Your task to perform on an android device: Go to accessibility settings Image 0: 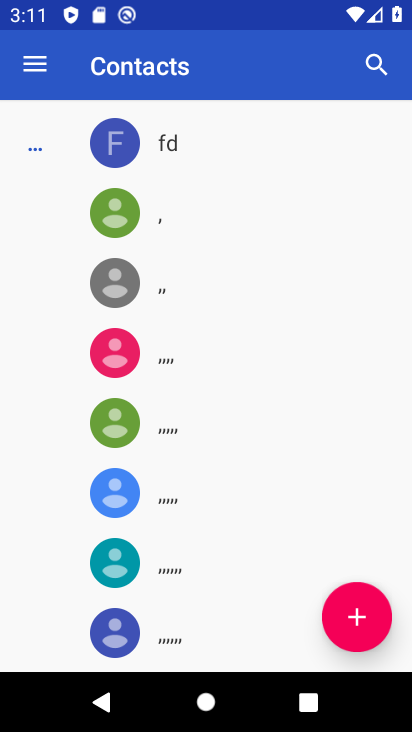
Step 0: press home button
Your task to perform on an android device: Go to accessibility settings Image 1: 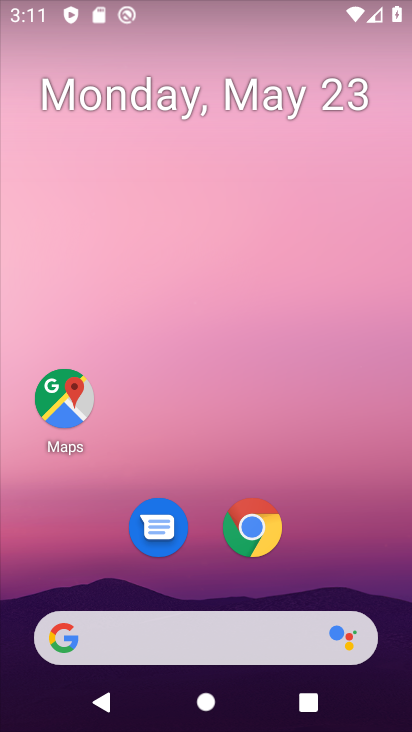
Step 1: drag from (309, 442) to (302, 179)
Your task to perform on an android device: Go to accessibility settings Image 2: 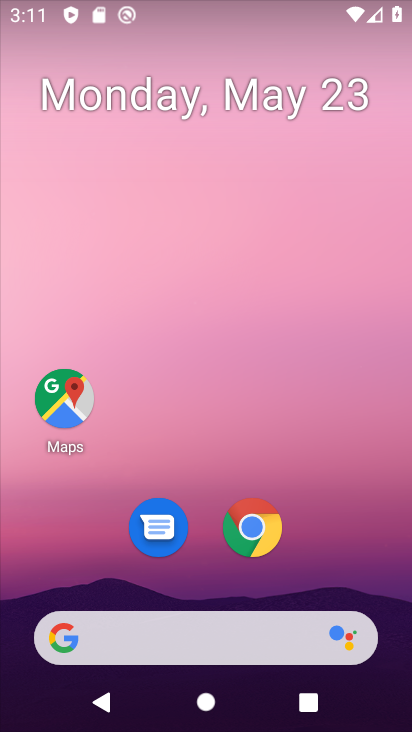
Step 2: drag from (334, 562) to (279, 145)
Your task to perform on an android device: Go to accessibility settings Image 3: 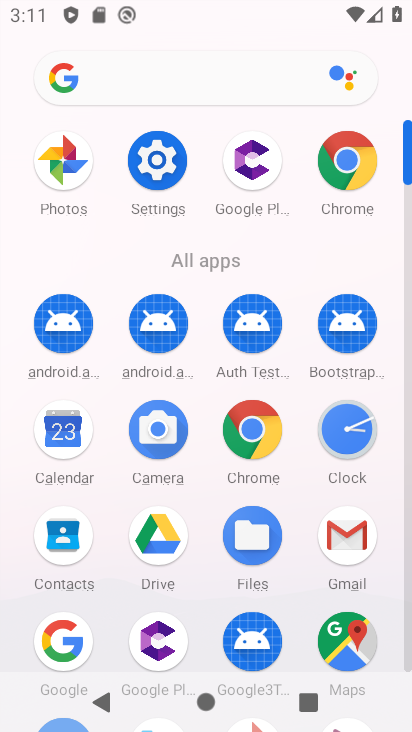
Step 3: click (164, 167)
Your task to perform on an android device: Go to accessibility settings Image 4: 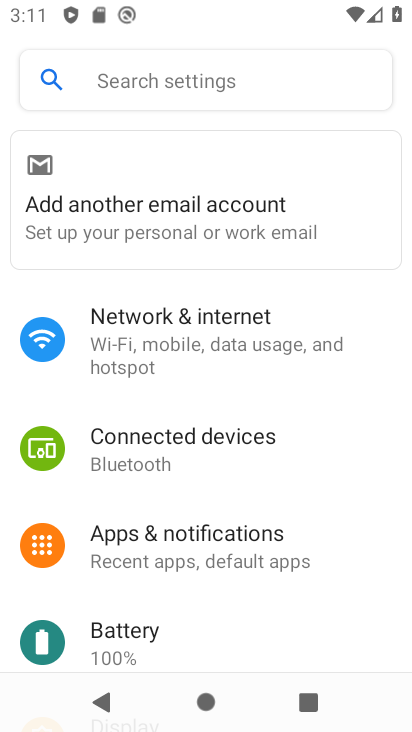
Step 4: click (271, 236)
Your task to perform on an android device: Go to accessibility settings Image 5: 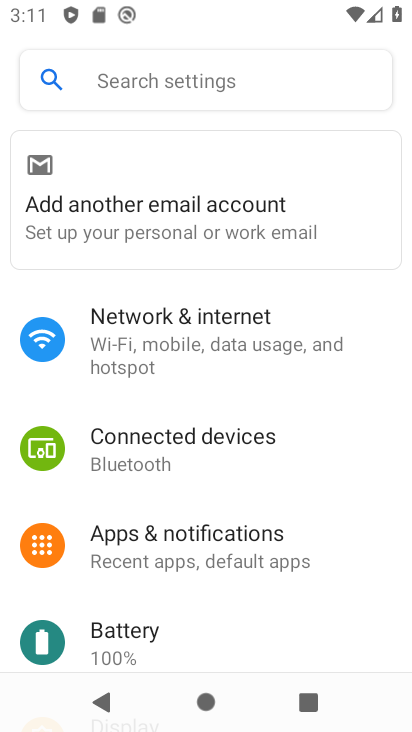
Step 5: drag from (282, 563) to (272, 229)
Your task to perform on an android device: Go to accessibility settings Image 6: 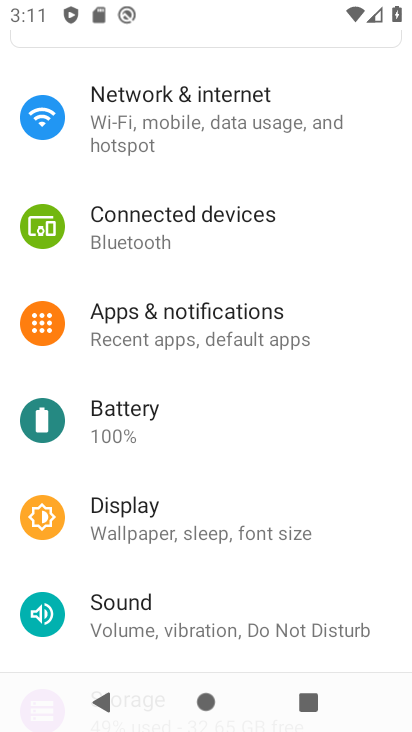
Step 6: drag from (289, 549) to (269, 236)
Your task to perform on an android device: Go to accessibility settings Image 7: 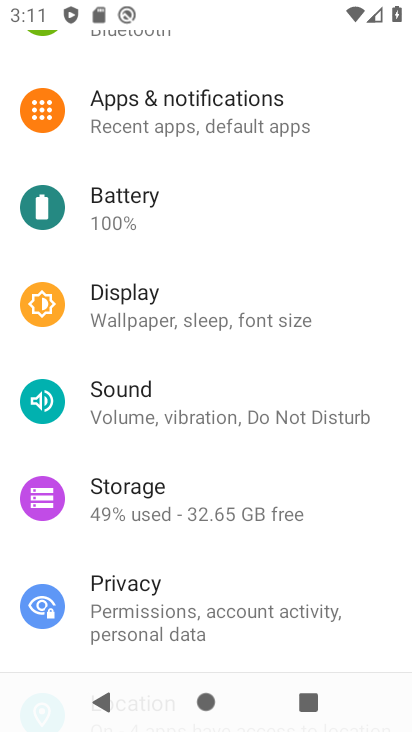
Step 7: drag from (252, 537) to (272, 240)
Your task to perform on an android device: Go to accessibility settings Image 8: 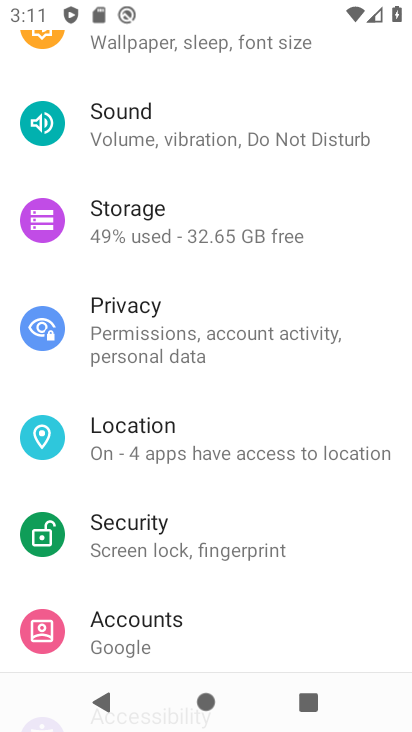
Step 8: drag from (258, 540) to (256, 244)
Your task to perform on an android device: Go to accessibility settings Image 9: 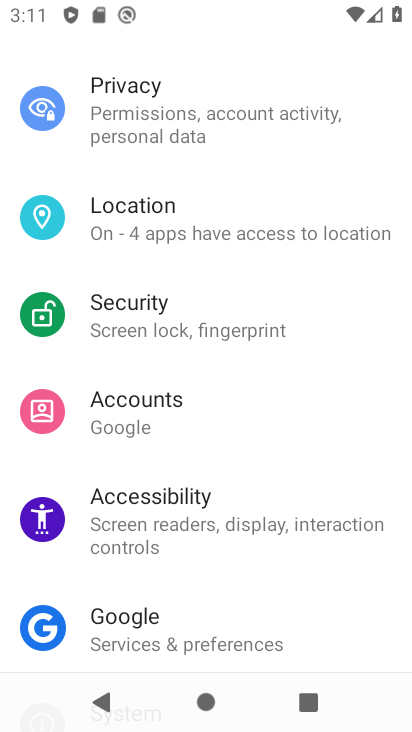
Step 9: click (259, 518)
Your task to perform on an android device: Go to accessibility settings Image 10: 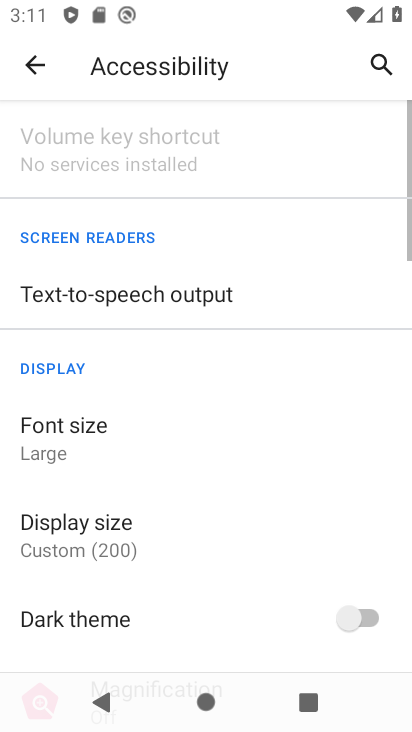
Step 10: task complete